Your task to perform on an android device: Search for the best selling TV on Best Buy. Image 0: 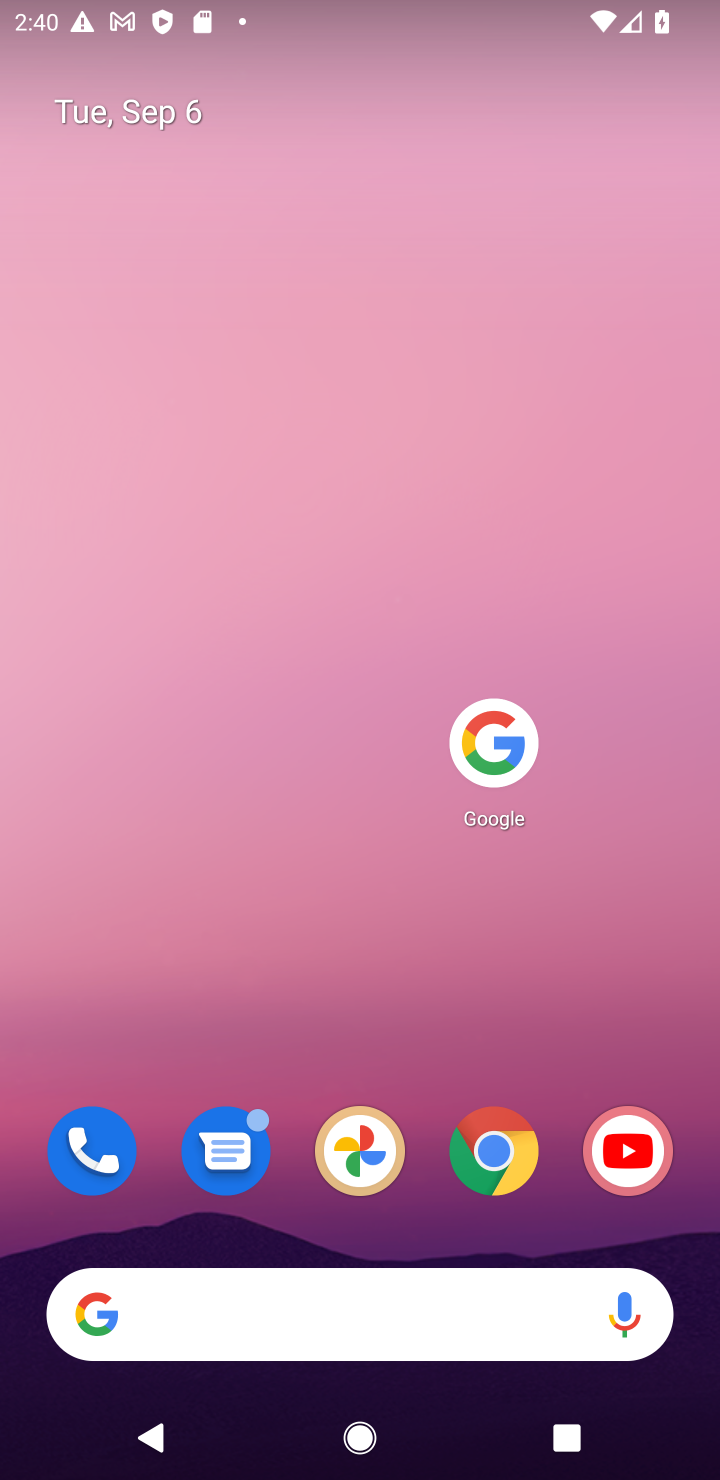
Step 0: click (480, 707)
Your task to perform on an android device: Search for the best selling TV on Best Buy. Image 1: 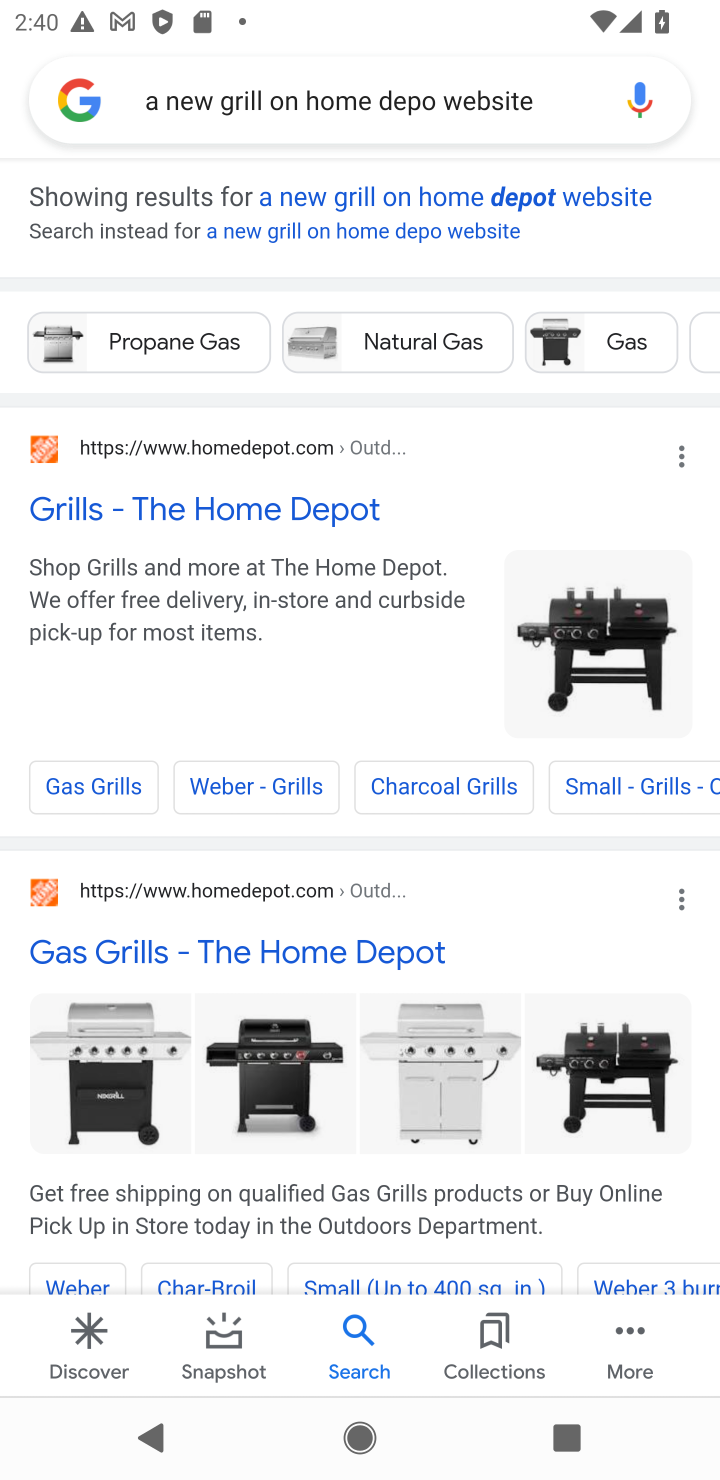
Step 1: press back button
Your task to perform on an android device: Search for the best selling TV on Best Buy. Image 2: 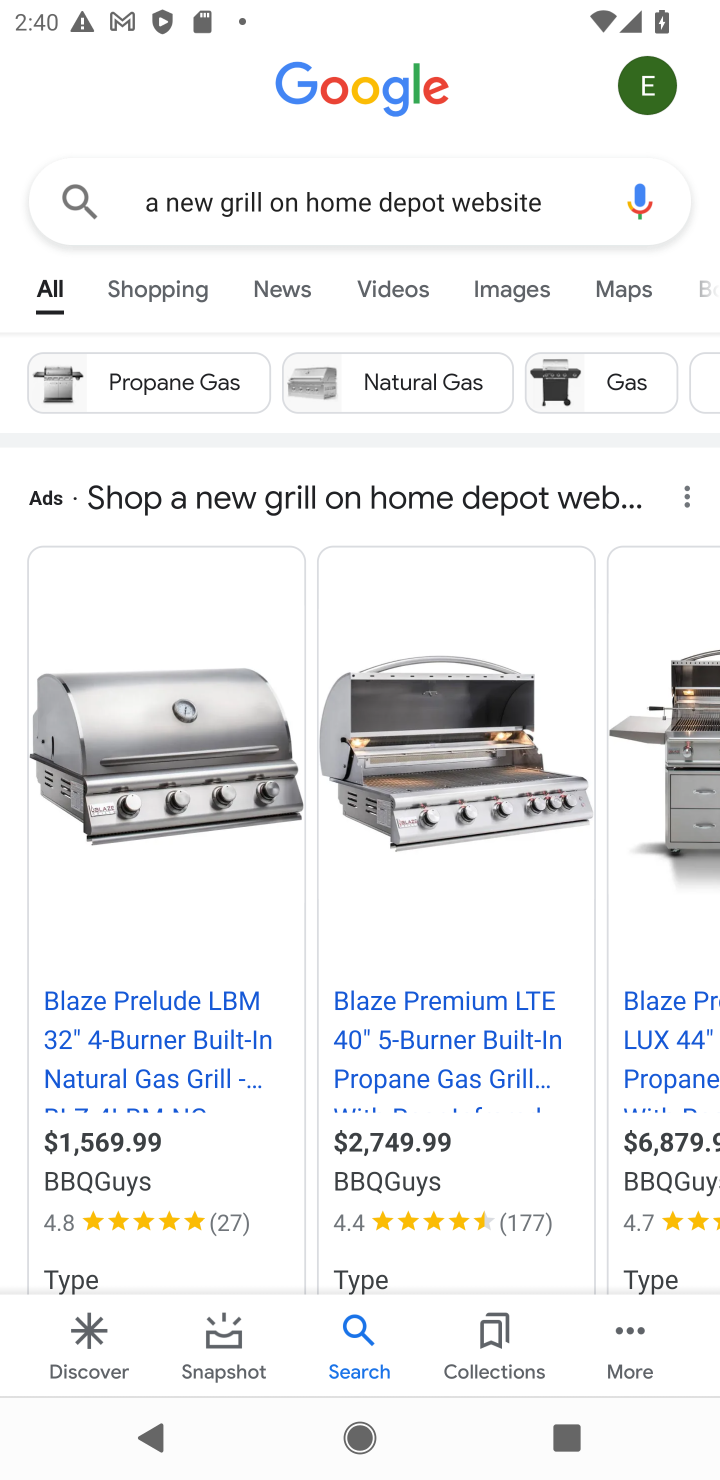
Step 2: press back button
Your task to perform on an android device: Search for the best selling TV on Best Buy. Image 3: 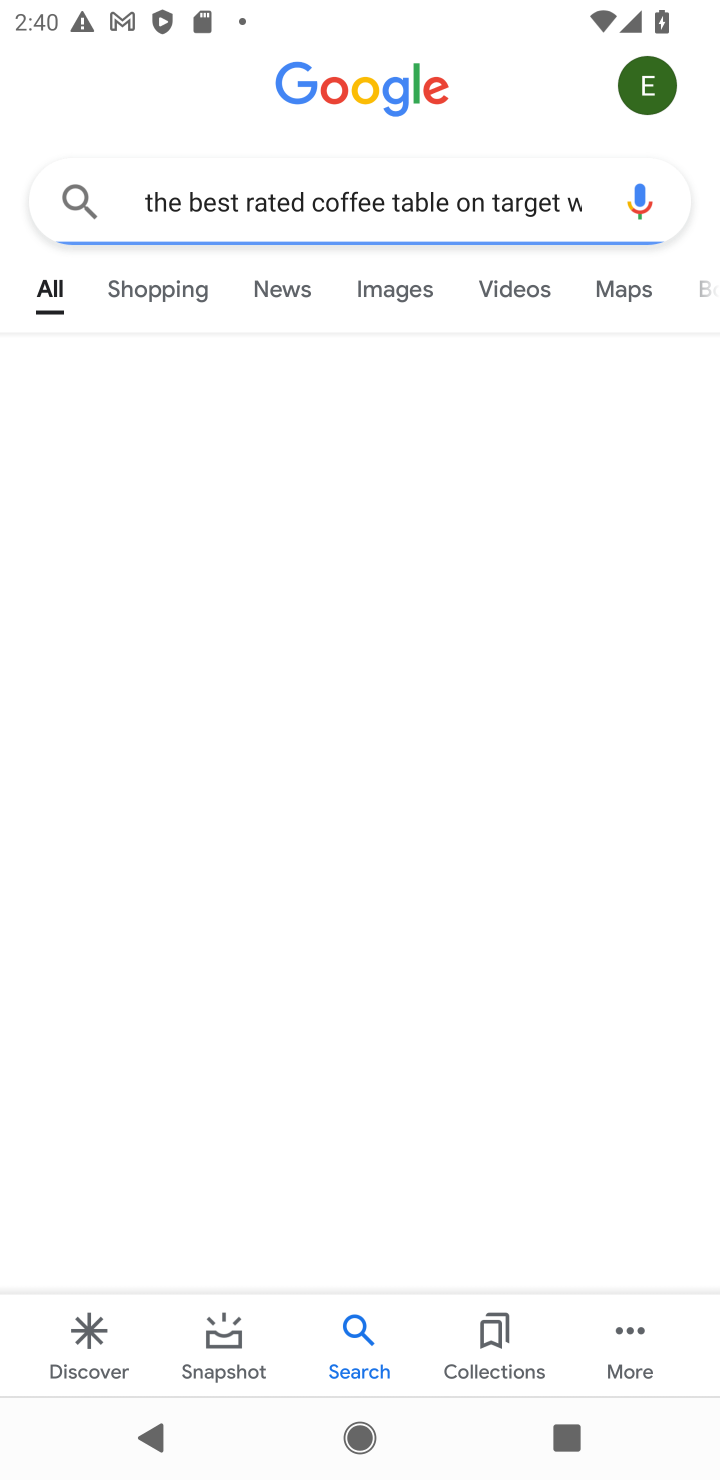
Step 3: press back button
Your task to perform on an android device: Search for the best selling TV on Best Buy. Image 4: 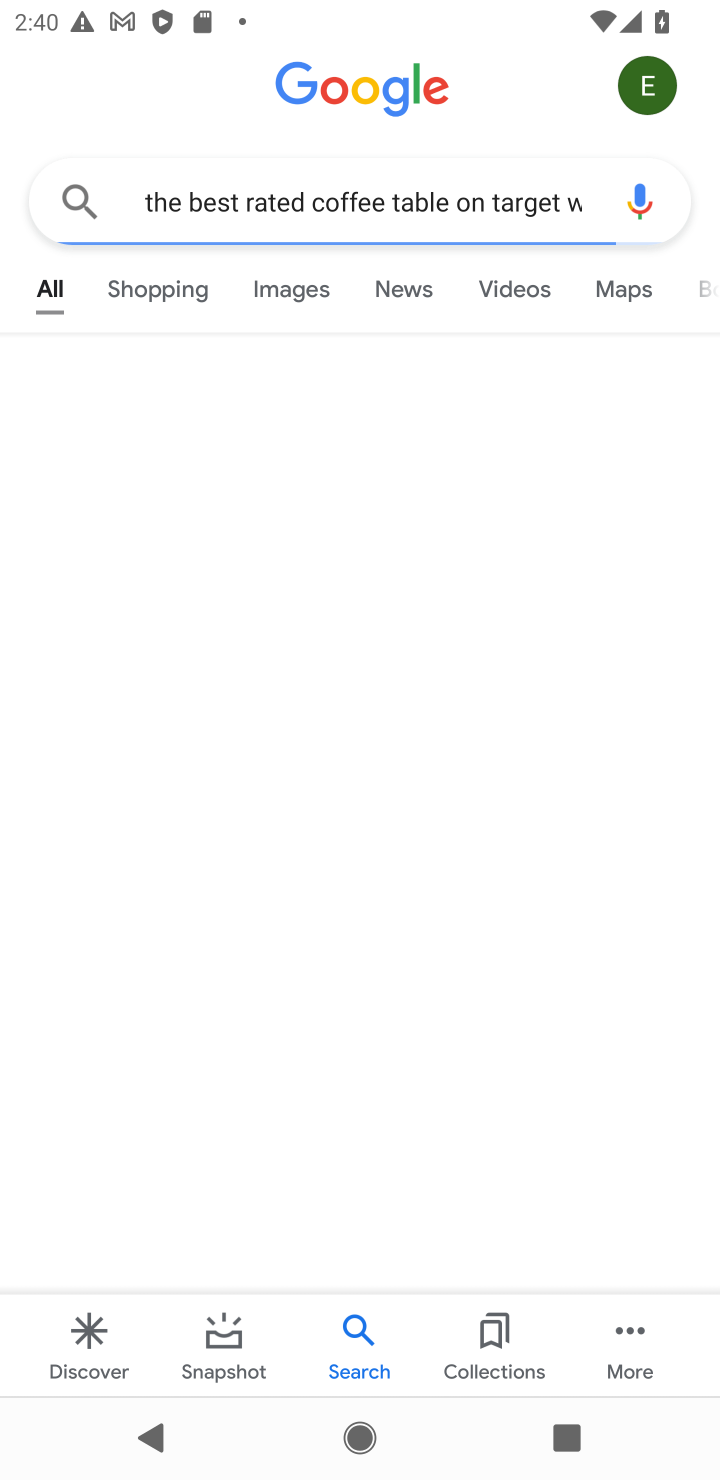
Step 4: press back button
Your task to perform on an android device: Search for the best selling TV on Best Buy. Image 5: 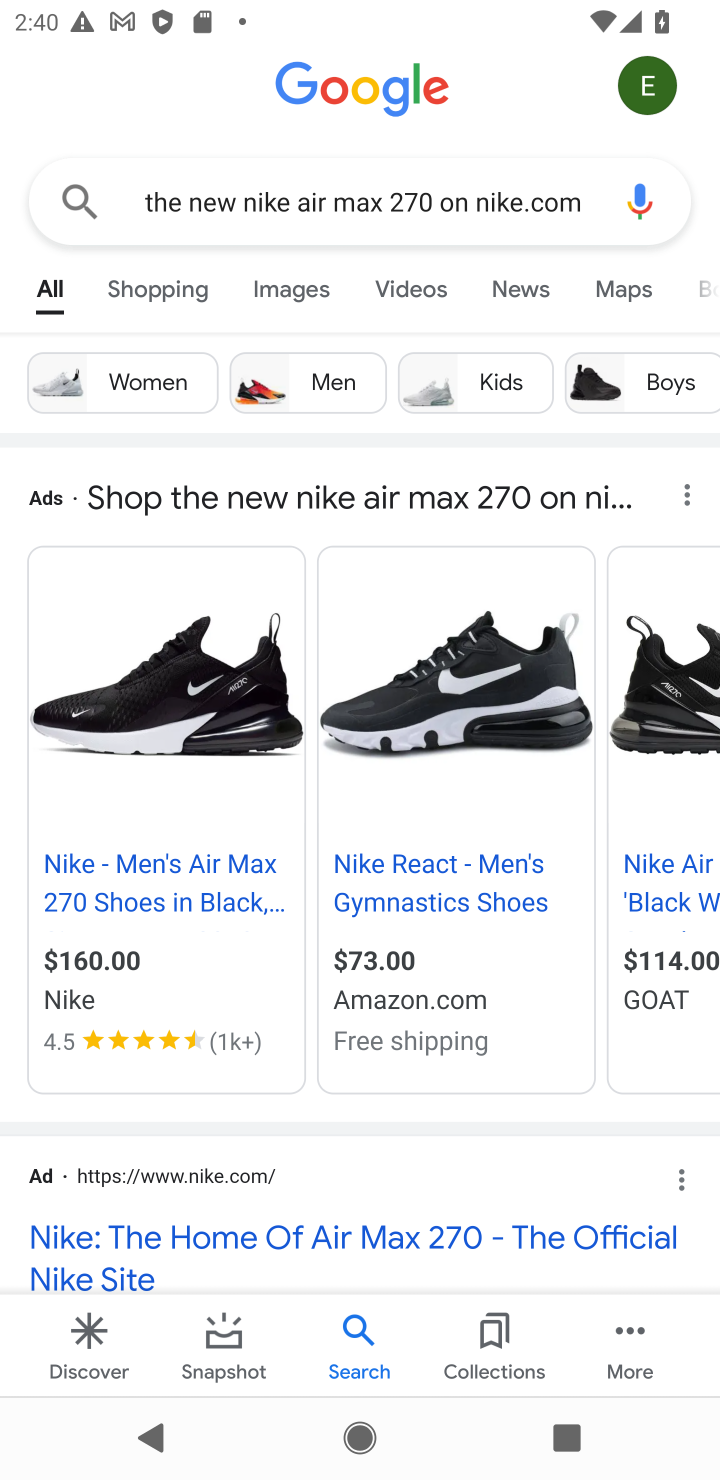
Step 5: press back button
Your task to perform on an android device: Search for the best selling TV on Best Buy. Image 6: 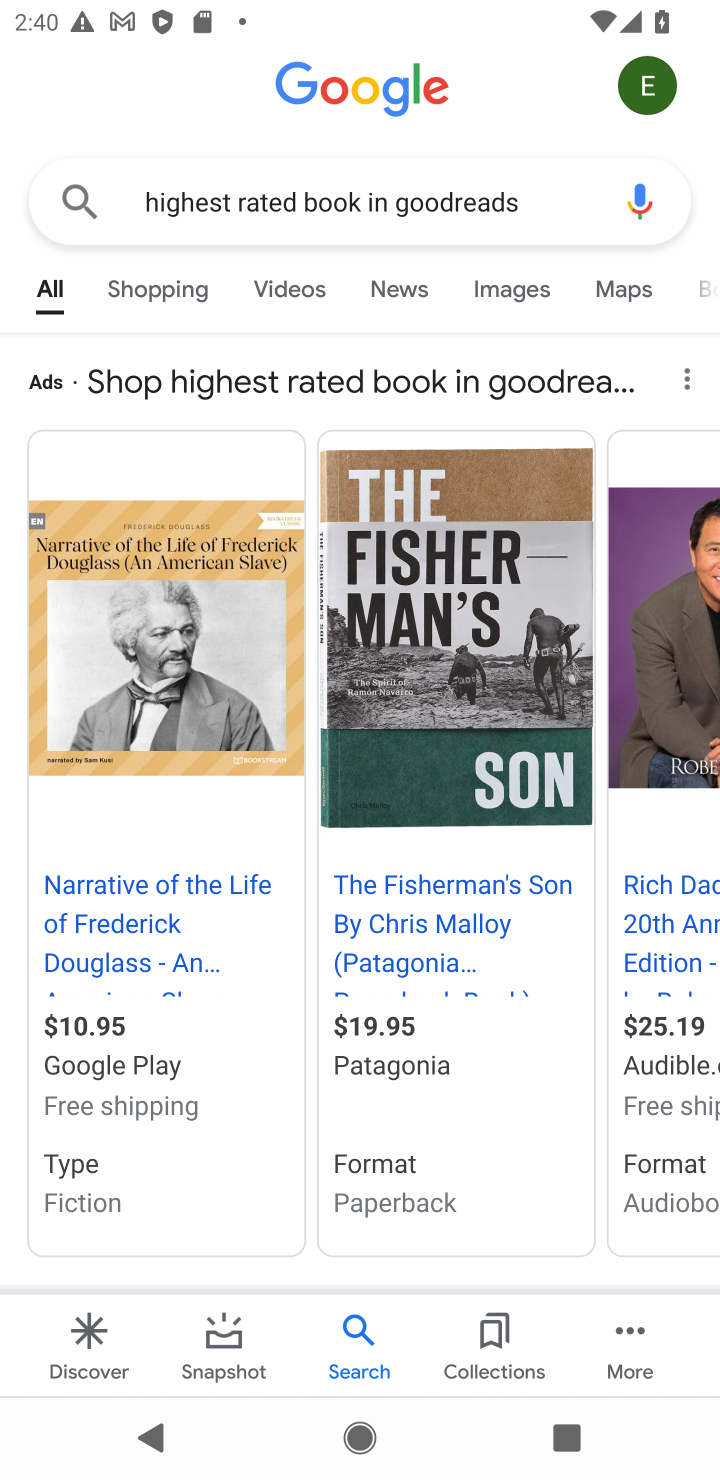
Step 6: press back button
Your task to perform on an android device: Search for the best selling TV on Best Buy. Image 7: 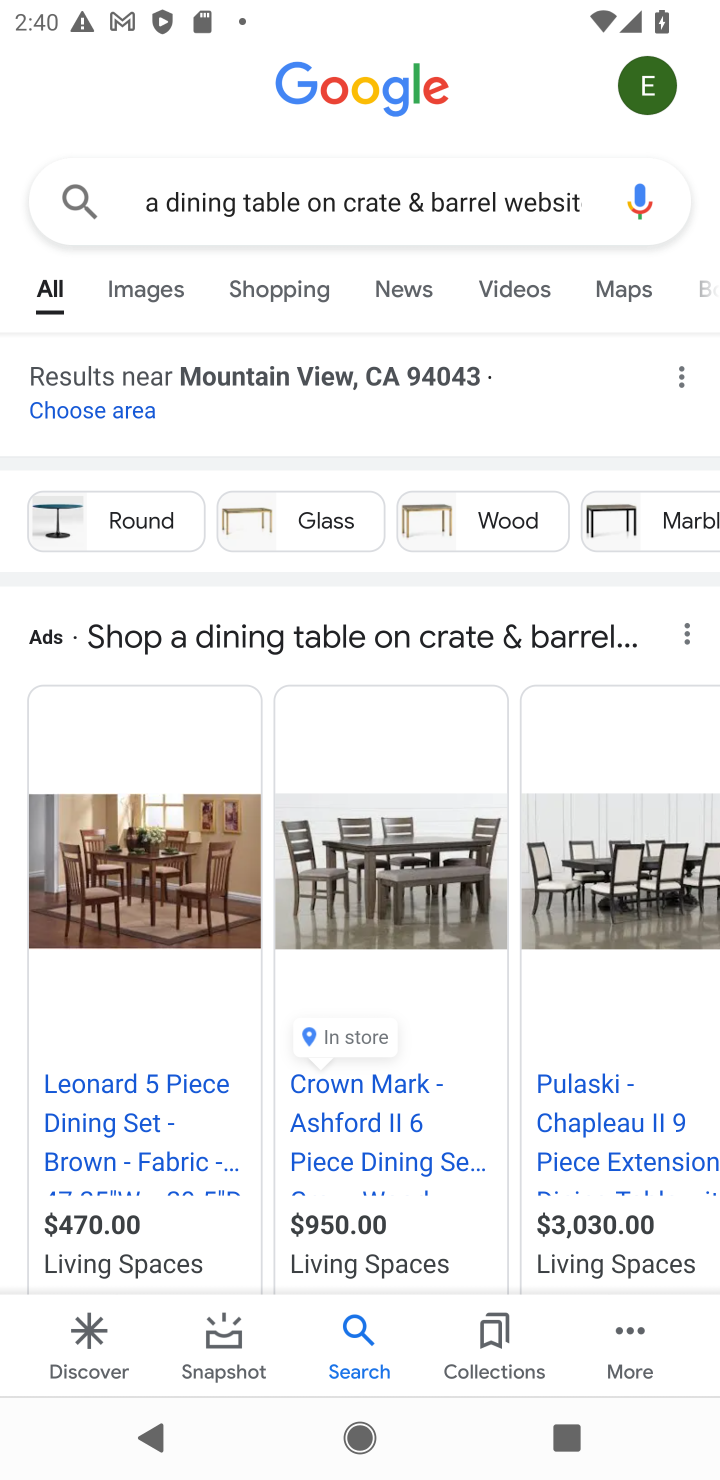
Step 7: press back button
Your task to perform on an android device: Search for the best selling TV on Best Buy. Image 8: 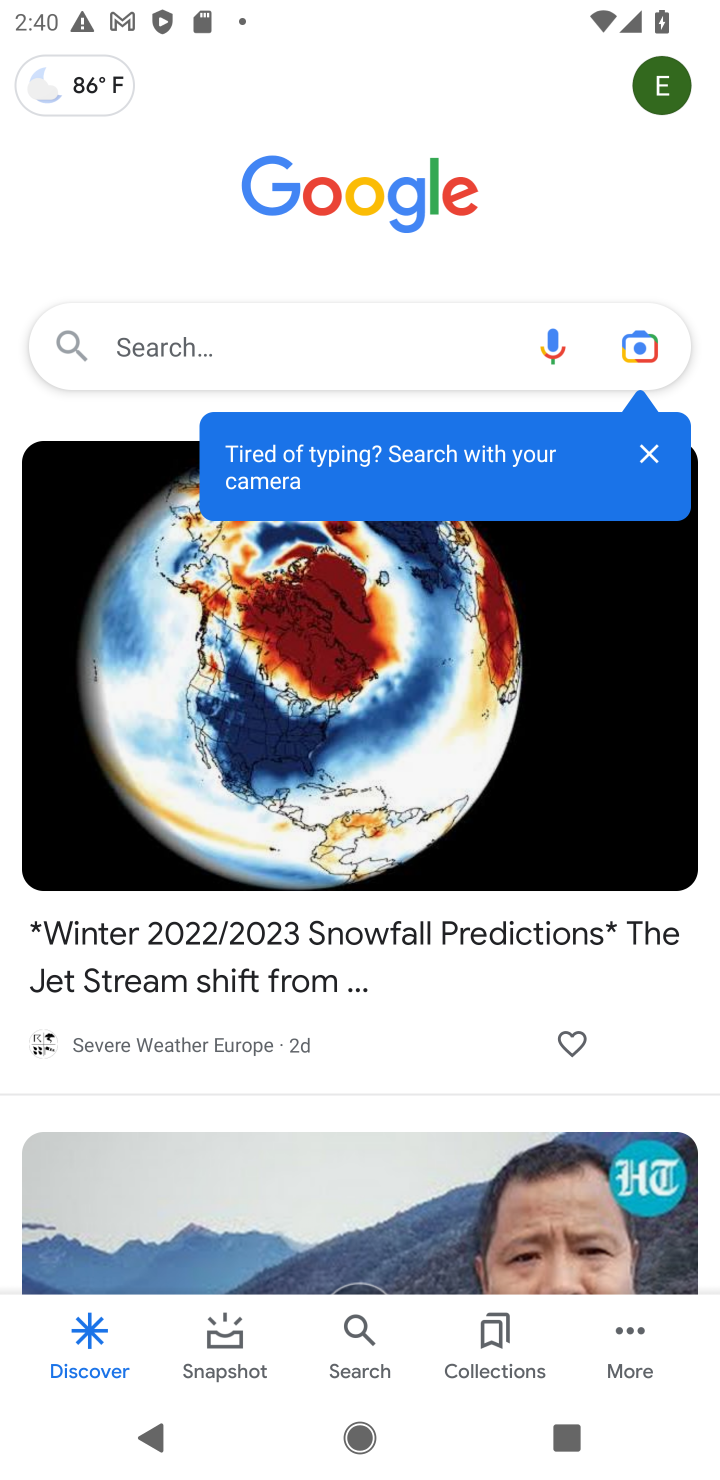
Step 8: click (275, 342)
Your task to perform on an android device: Search for the best selling TV on Best Buy. Image 9: 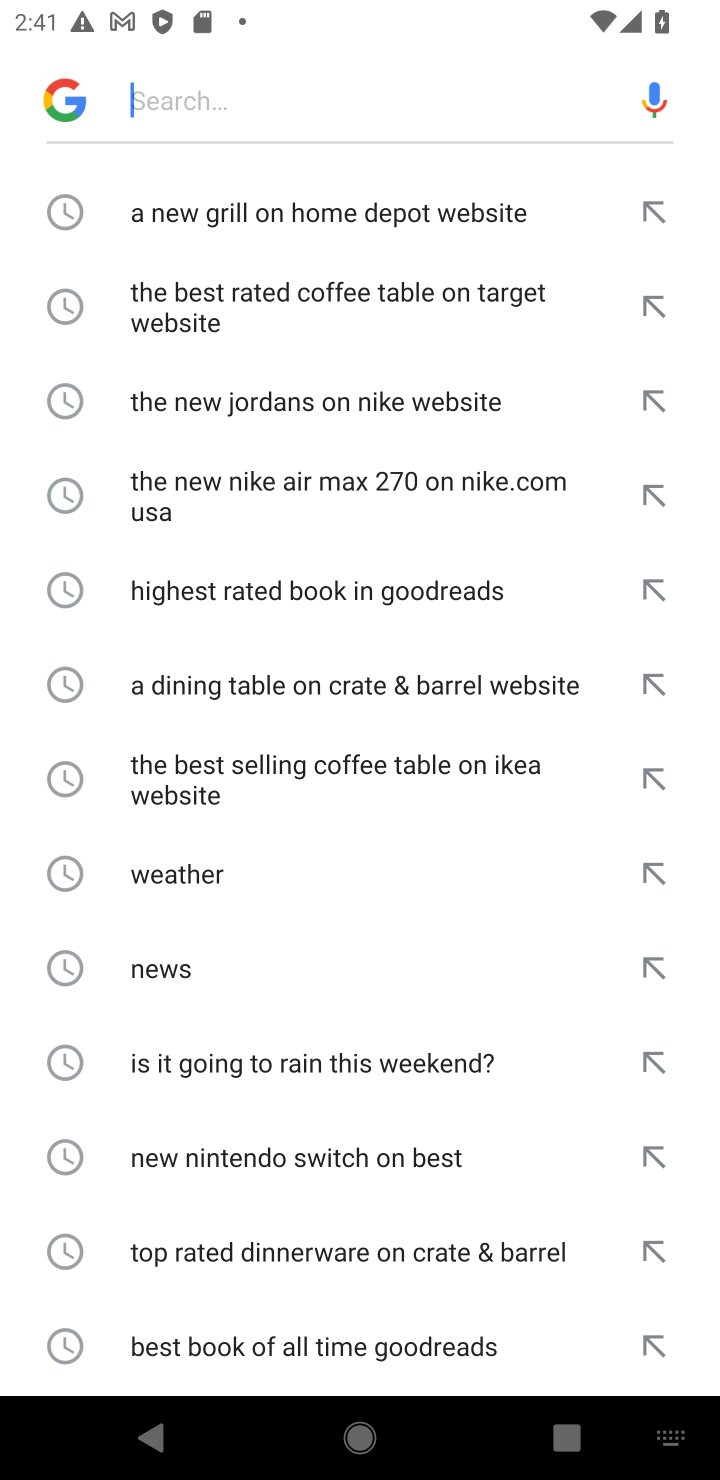
Step 9: type "the best selling TV on Best Buy "
Your task to perform on an android device: Search for the best selling TV on Best Buy. Image 10: 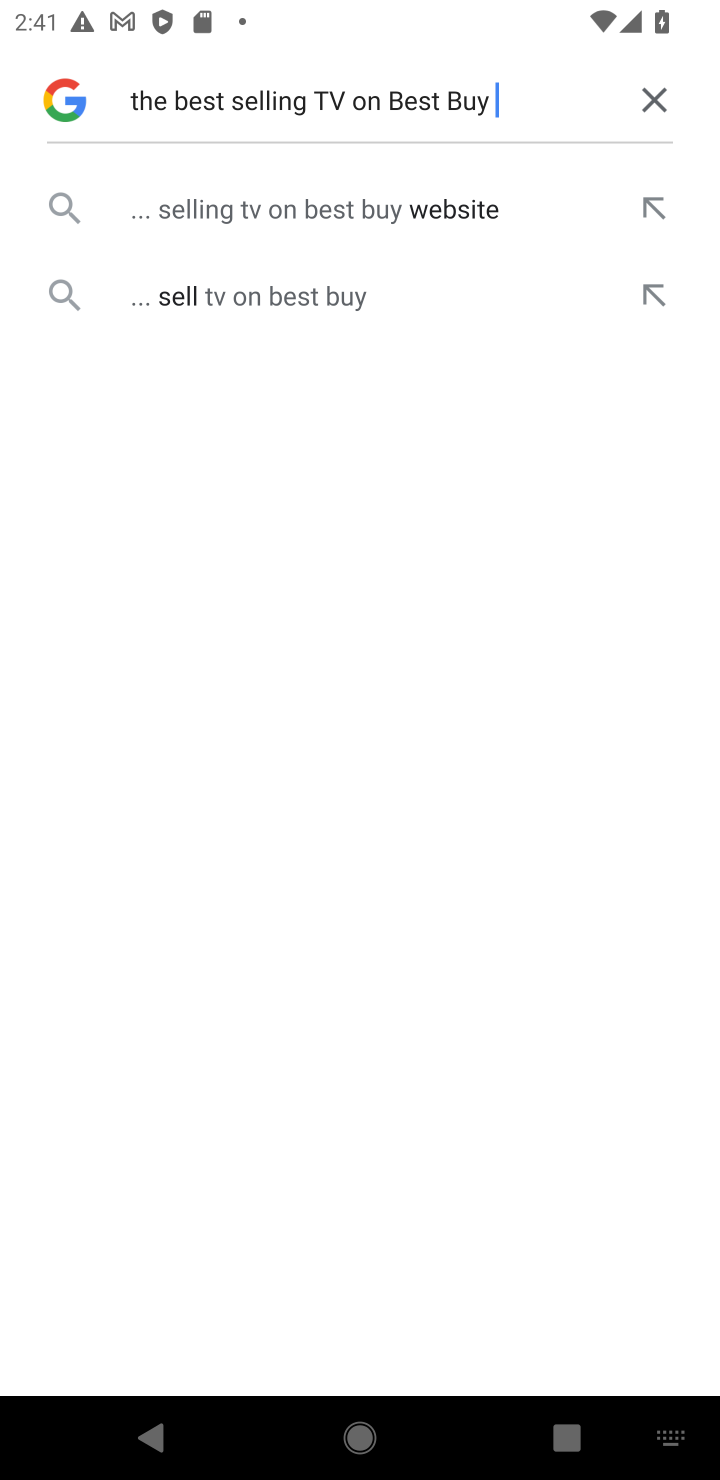
Step 10: click (363, 222)
Your task to perform on an android device: Search for the best selling TV on Best Buy. Image 11: 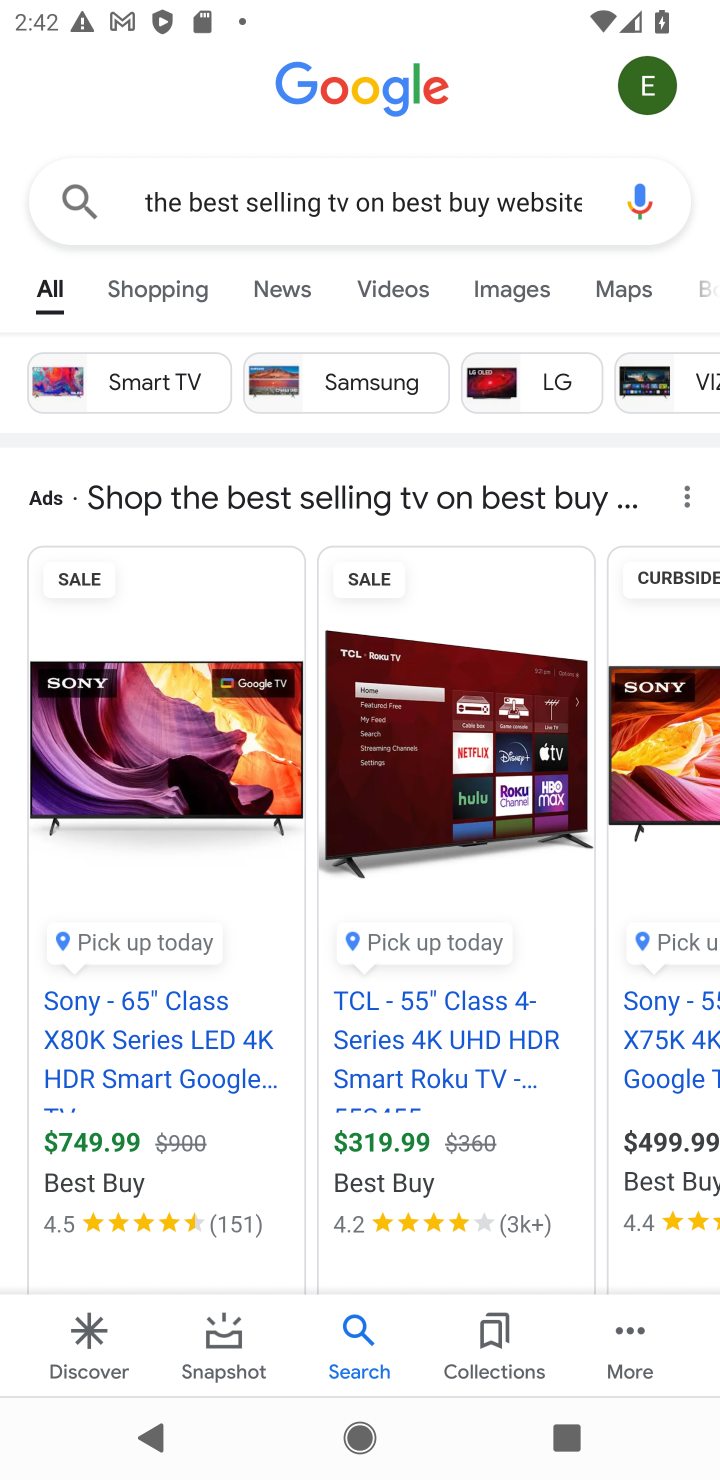
Step 11: task complete